Your task to perform on an android device: toggle show notifications on the lock screen Image 0: 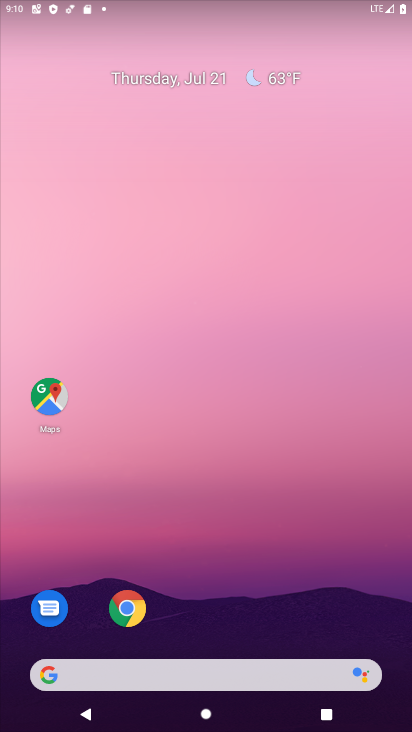
Step 0: drag from (293, 584) to (282, 270)
Your task to perform on an android device: toggle show notifications on the lock screen Image 1: 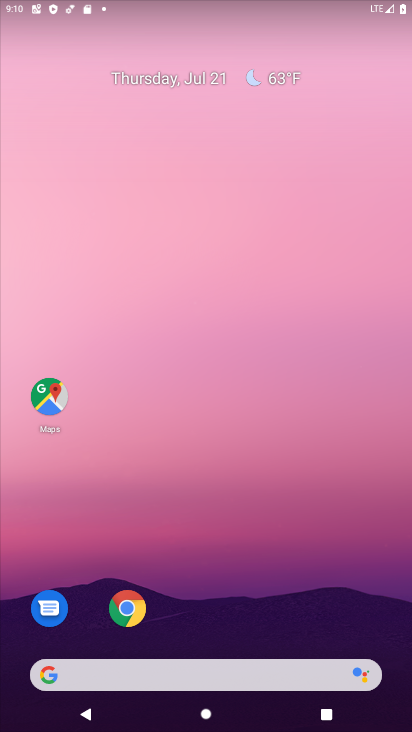
Step 1: drag from (288, 592) to (285, 412)
Your task to perform on an android device: toggle show notifications on the lock screen Image 2: 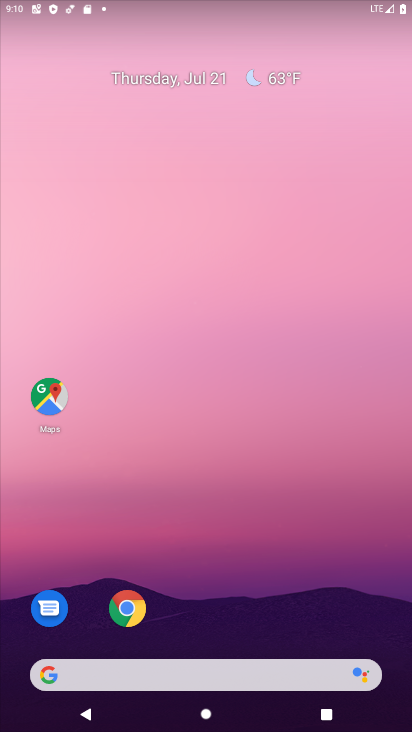
Step 2: drag from (287, 415) to (318, 166)
Your task to perform on an android device: toggle show notifications on the lock screen Image 3: 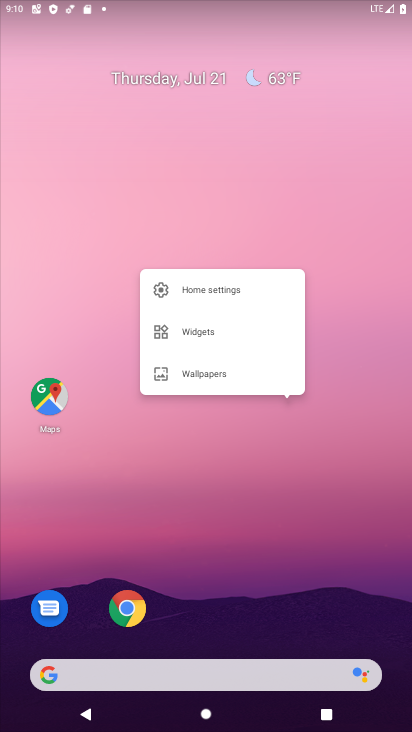
Step 3: click (176, 353)
Your task to perform on an android device: toggle show notifications on the lock screen Image 4: 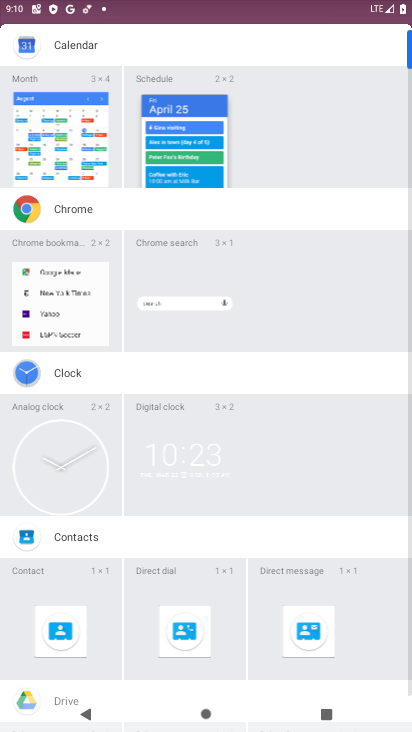
Step 4: click (260, 427)
Your task to perform on an android device: toggle show notifications on the lock screen Image 5: 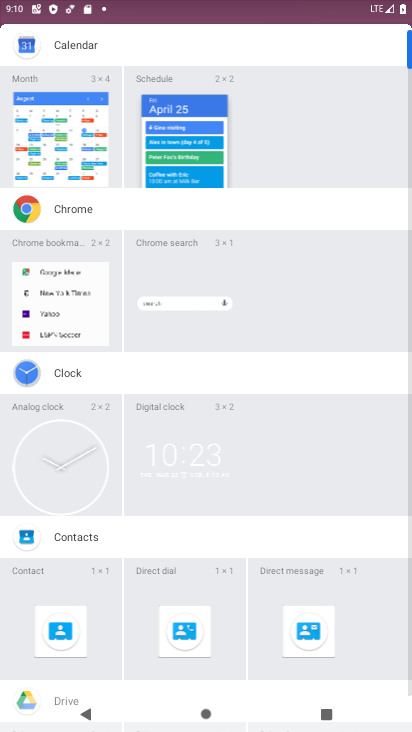
Step 5: press home button
Your task to perform on an android device: toggle show notifications on the lock screen Image 6: 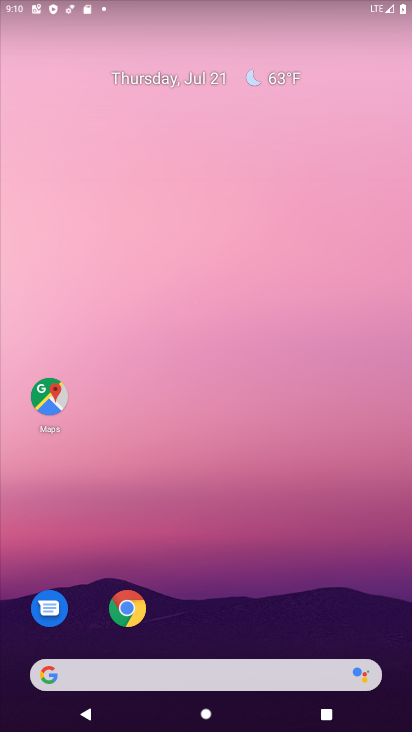
Step 6: drag from (306, 687) to (289, 421)
Your task to perform on an android device: toggle show notifications on the lock screen Image 7: 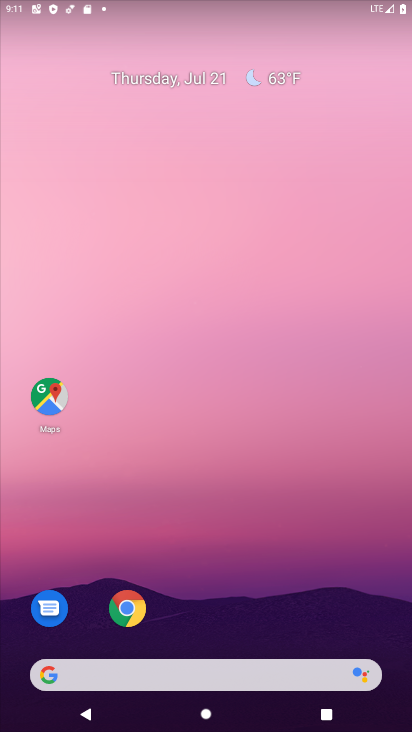
Step 7: drag from (261, 483) to (280, 97)
Your task to perform on an android device: toggle show notifications on the lock screen Image 8: 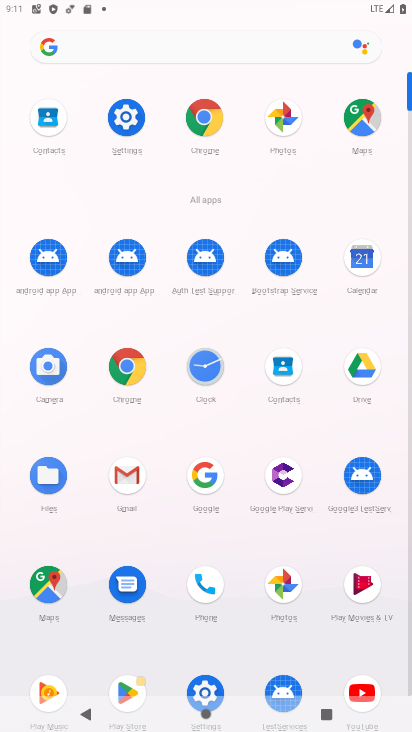
Step 8: click (127, 131)
Your task to perform on an android device: toggle show notifications on the lock screen Image 9: 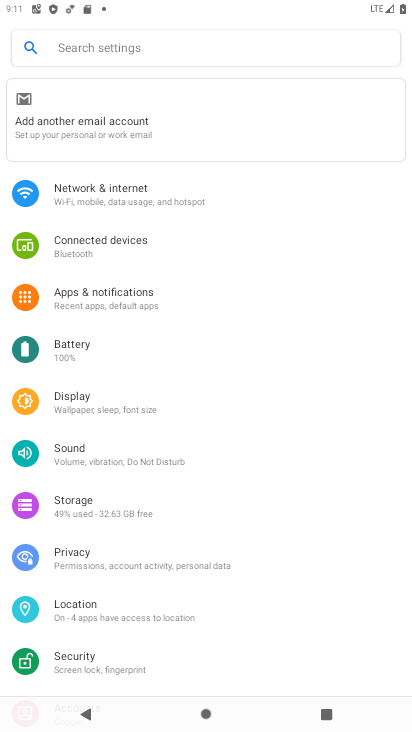
Step 9: click (129, 310)
Your task to perform on an android device: toggle show notifications on the lock screen Image 10: 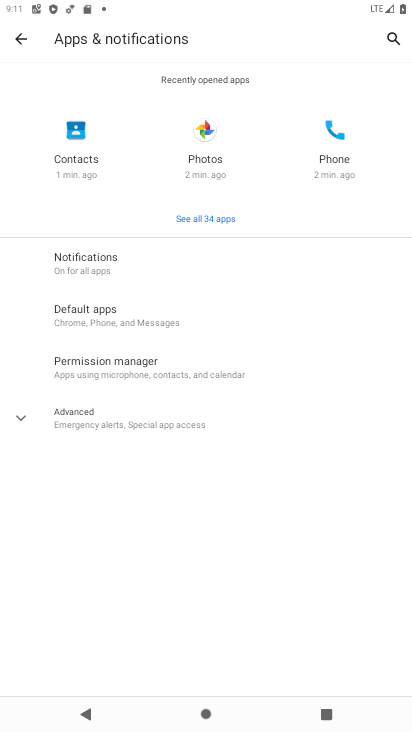
Step 10: click (154, 274)
Your task to perform on an android device: toggle show notifications on the lock screen Image 11: 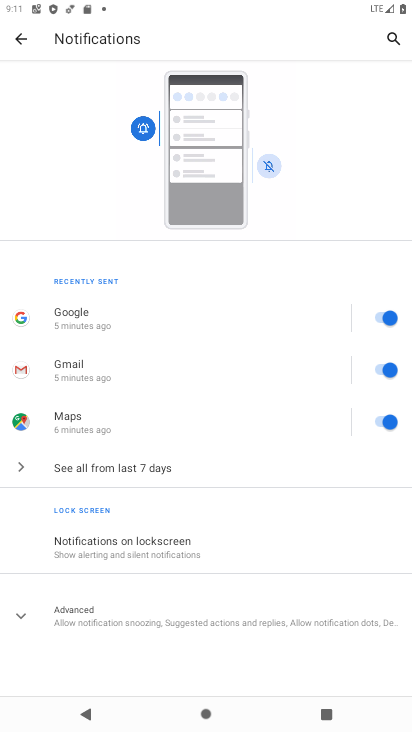
Step 11: click (87, 267)
Your task to perform on an android device: toggle show notifications on the lock screen Image 12: 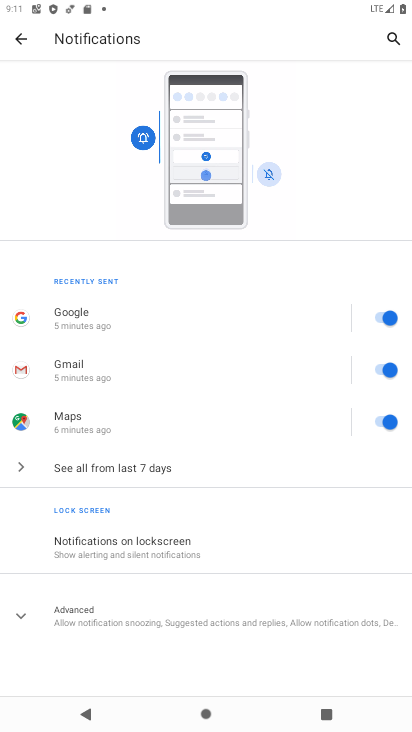
Step 12: click (160, 549)
Your task to perform on an android device: toggle show notifications on the lock screen Image 13: 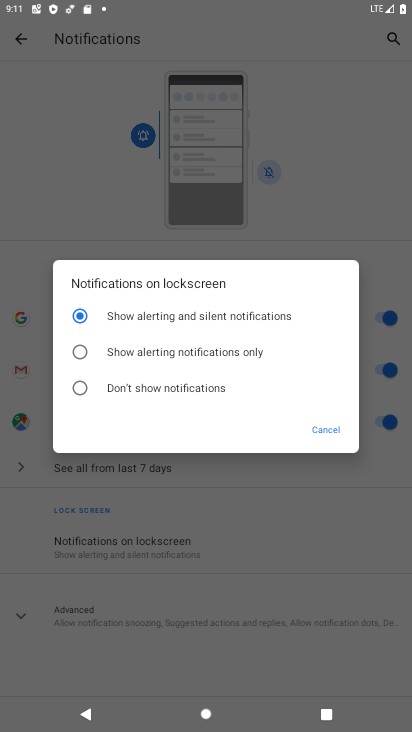
Step 13: click (133, 391)
Your task to perform on an android device: toggle show notifications on the lock screen Image 14: 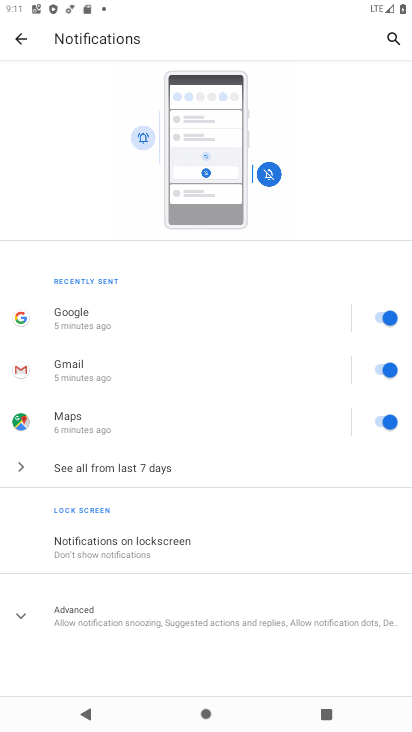
Step 14: task complete